Your task to perform on an android device: open app "Viber Messenger" (install if not already installed), go to login, and select forgot password Image 0: 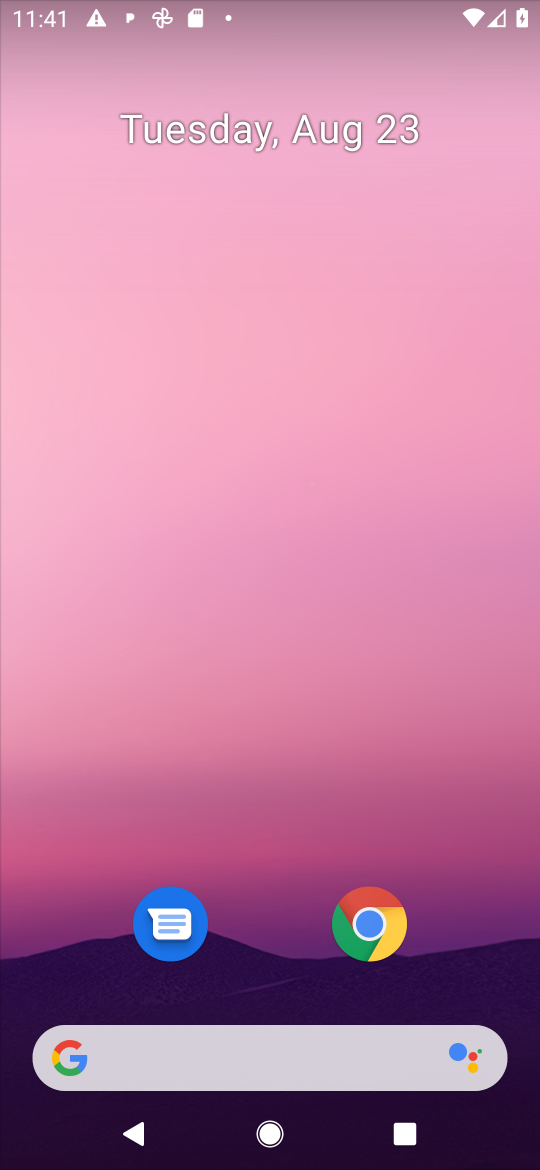
Step 0: press home button
Your task to perform on an android device: open app "Viber Messenger" (install if not already installed), go to login, and select forgot password Image 1: 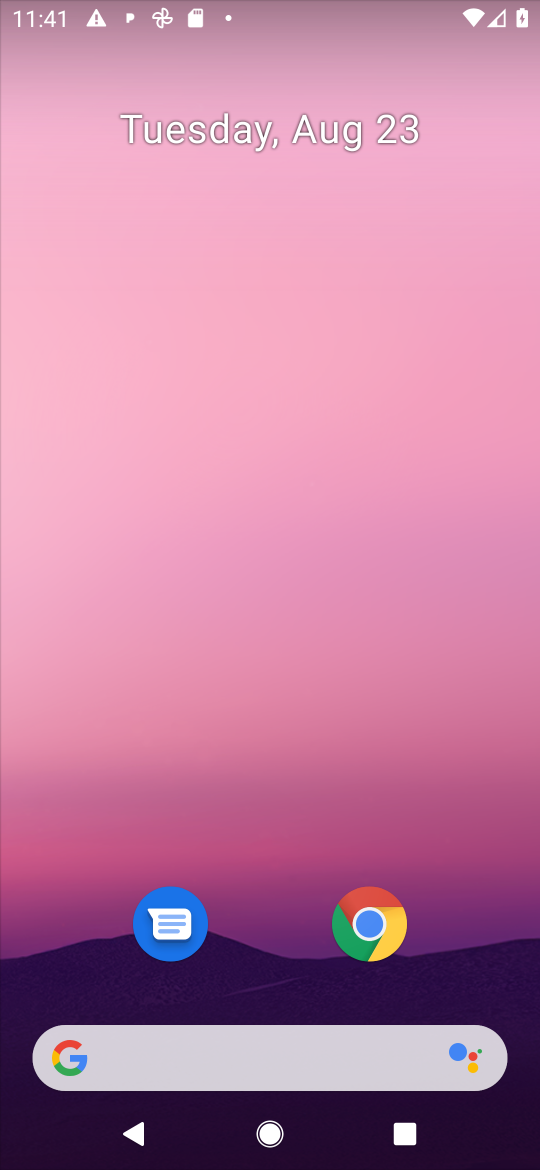
Step 1: drag from (492, 946) to (511, 161)
Your task to perform on an android device: open app "Viber Messenger" (install if not already installed), go to login, and select forgot password Image 2: 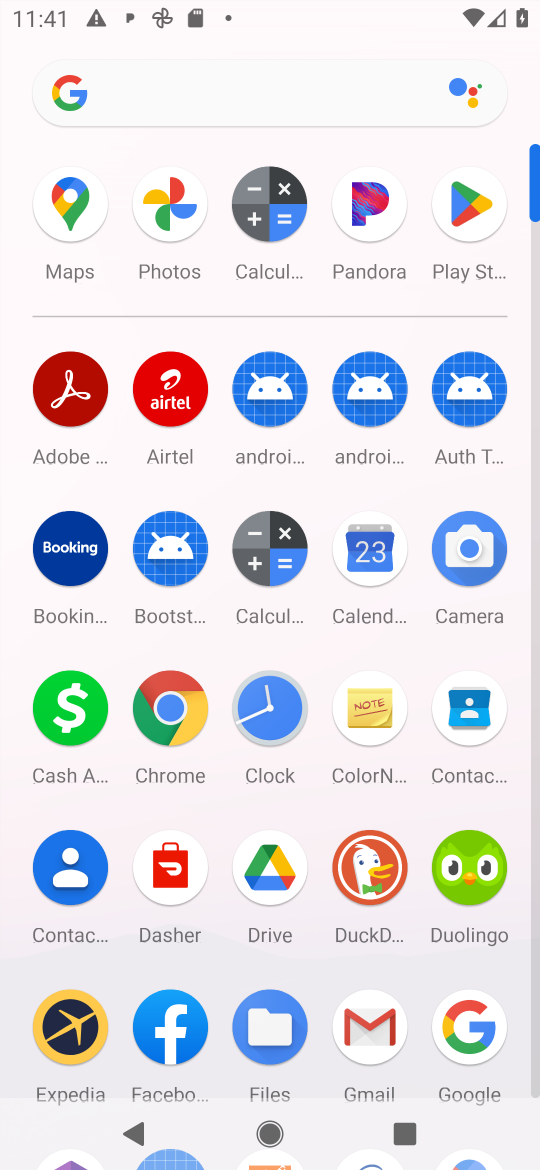
Step 2: click (467, 210)
Your task to perform on an android device: open app "Viber Messenger" (install if not already installed), go to login, and select forgot password Image 3: 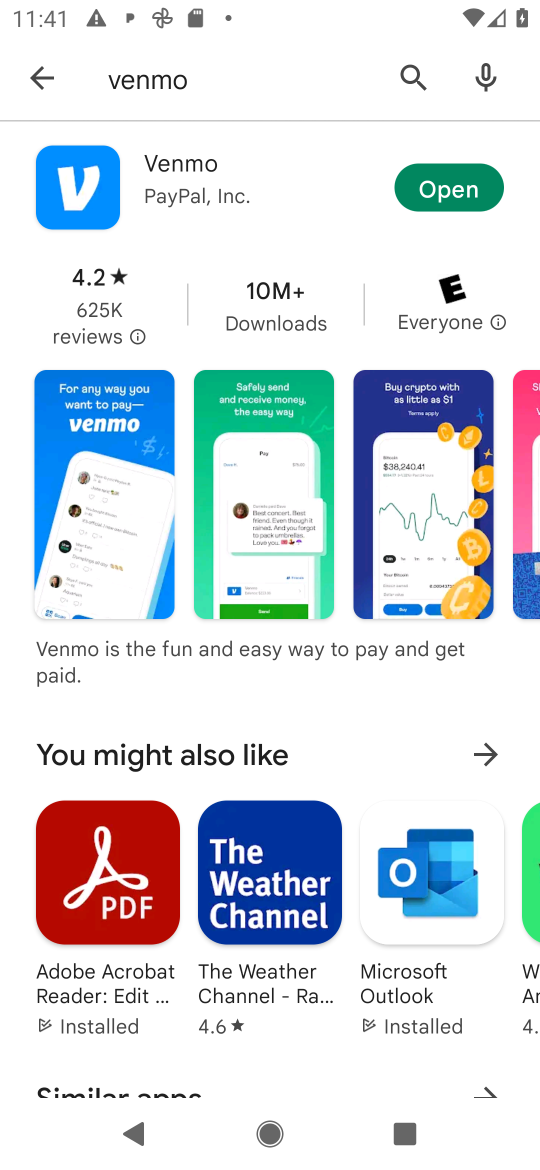
Step 3: press back button
Your task to perform on an android device: open app "Viber Messenger" (install if not already installed), go to login, and select forgot password Image 4: 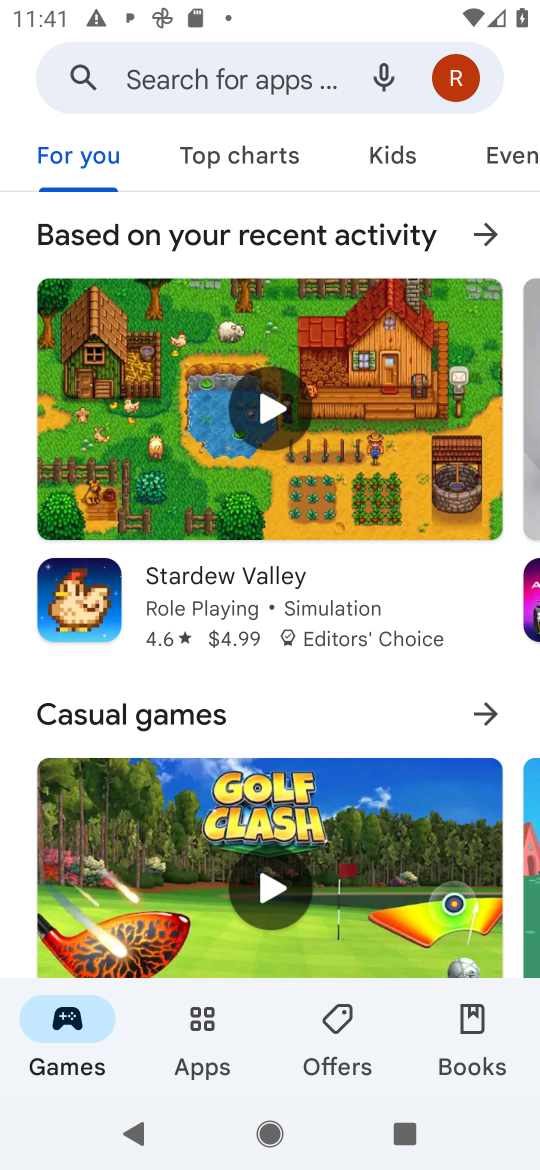
Step 4: click (246, 89)
Your task to perform on an android device: open app "Viber Messenger" (install if not already installed), go to login, and select forgot password Image 5: 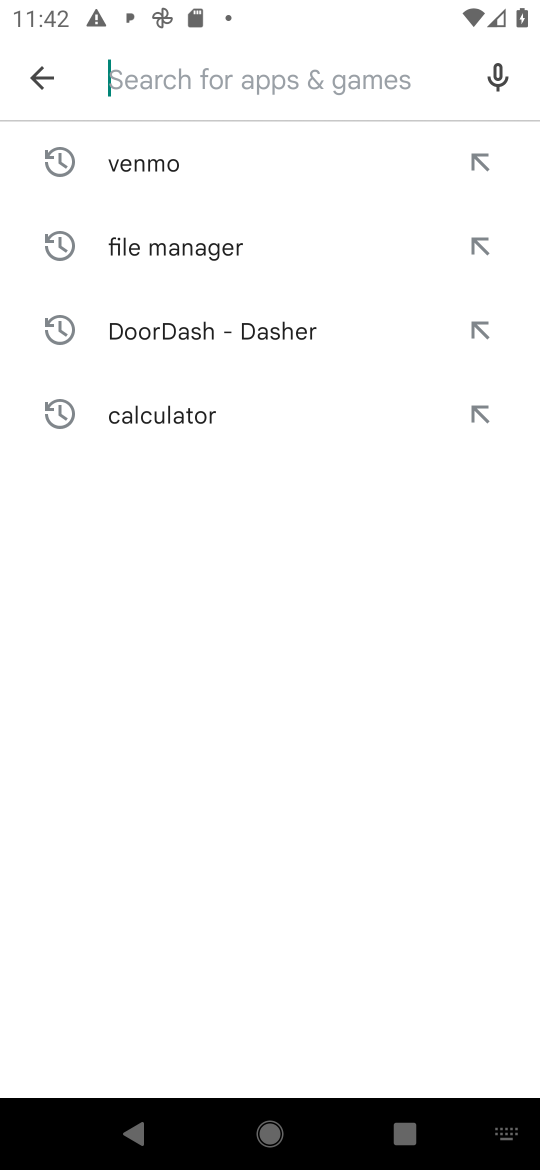
Step 5: press enter
Your task to perform on an android device: open app "Viber Messenger" (install if not already installed), go to login, and select forgot password Image 6: 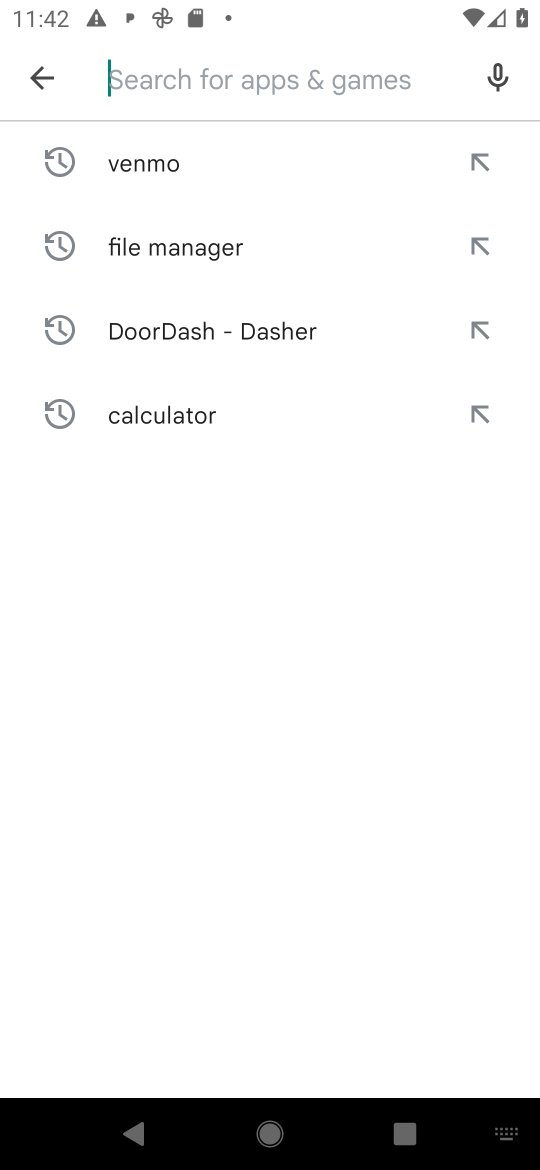
Step 6: type "Viber Messenger"
Your task to perform on an android device: open app "Viber Messenger" (install if not already installed), go to login, and select forgot password Image 7: 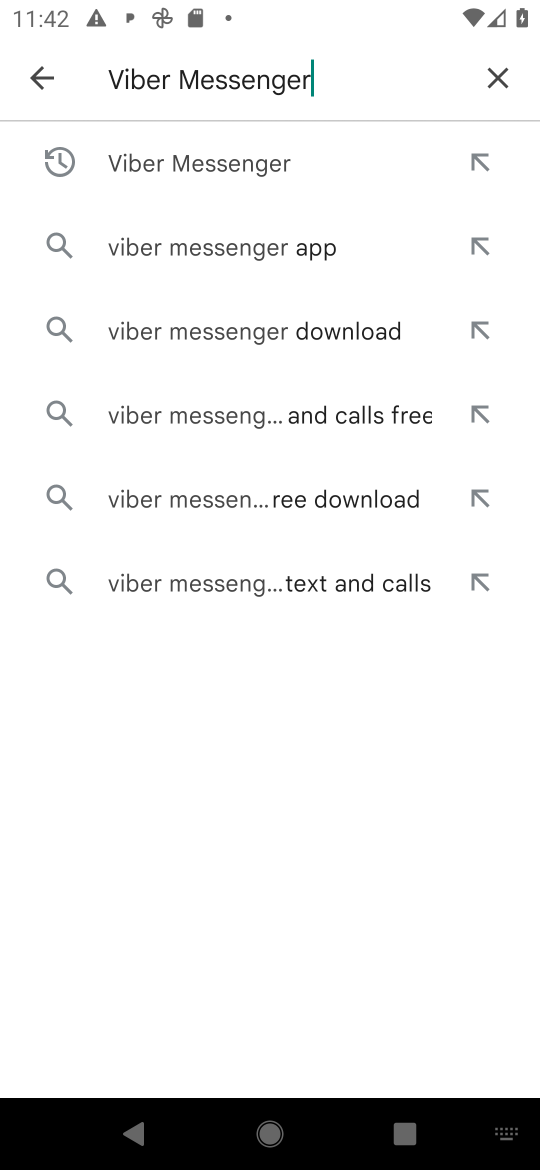
Step 7: click (283, 160)
Your task to perform on an android device: open app "Viber Messenger" (install if not already installed), go to login, and select forgot password Image 8: 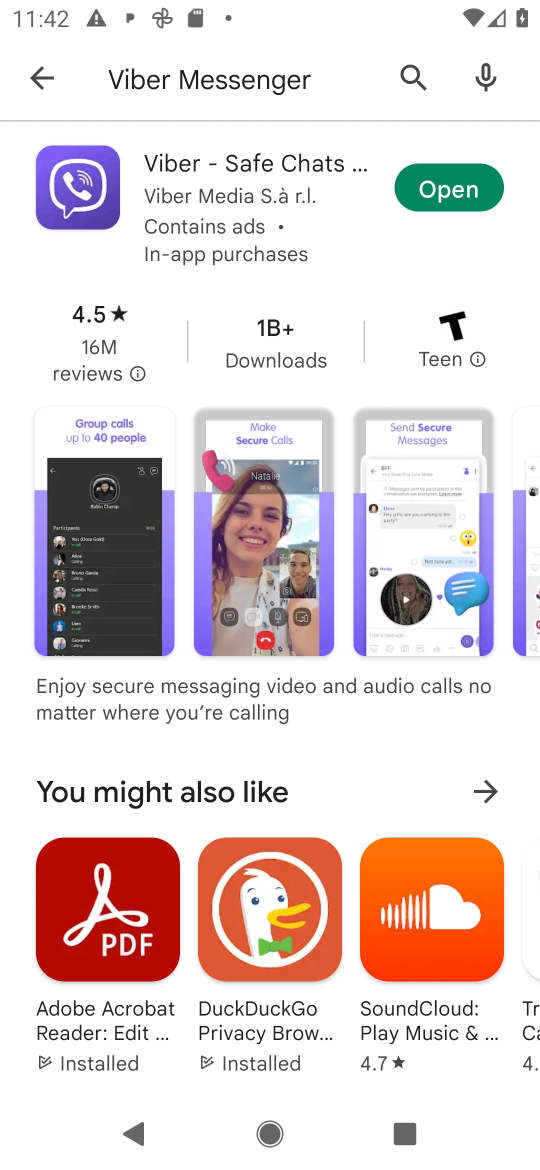
Step 8: click (459, 187)
Your task to perform on an android device: open app "Viber Messenger" (install if not already installed), go to login, and select forgot password Image 9: 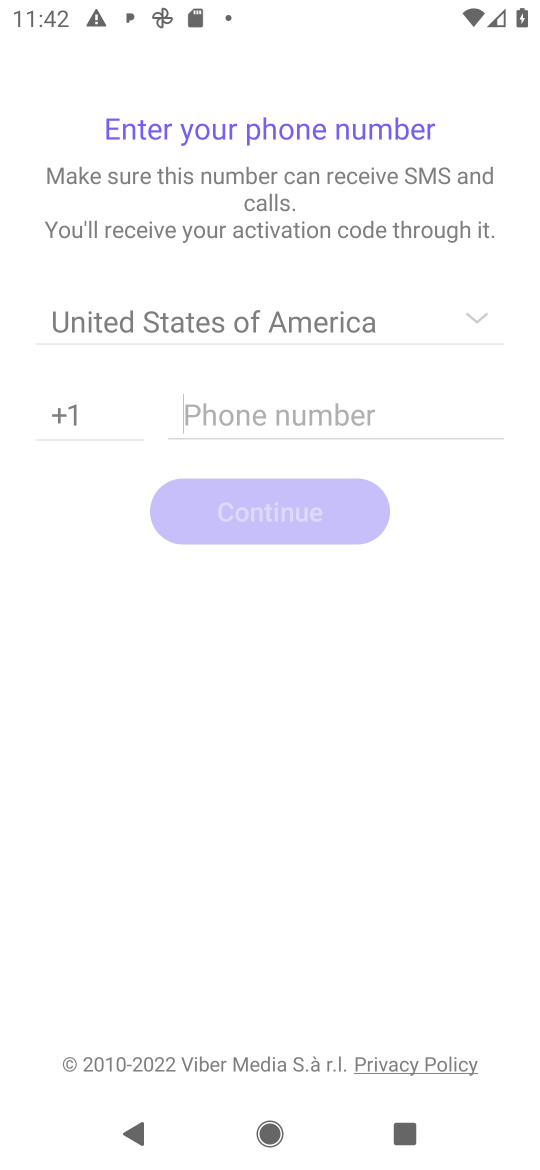
Step 9: task complete